Your task to perform on an android device: turn on location history Image 0: 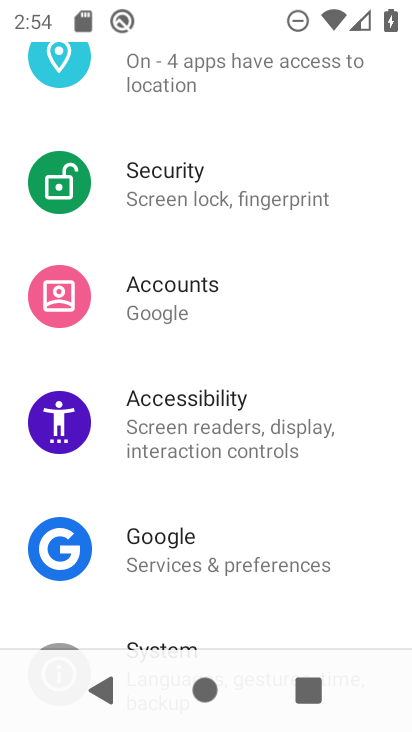
Step 0: click (197, 75)
Your task to perform on an android device: turn on location history Image 1: 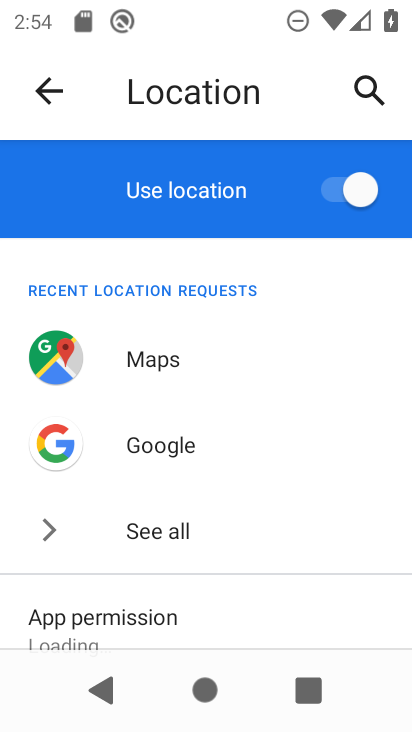
Step 1: drag from (236, 564) to (286, 146)
Your task to perform on an android device: turn on location history Image 2: 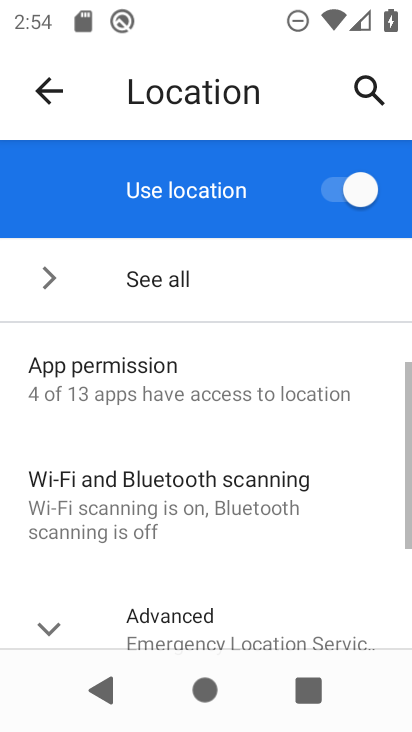
Step 2: drag from (254, 560) to (259, 326)
Your task to perform on an android device: turn on location history Image 3: 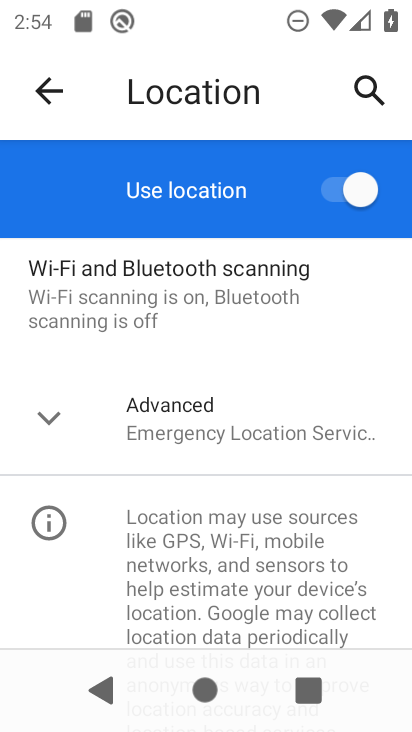
Step 3: click (209, 420)
Your task to perform on an android device: turn on location history Image 4: 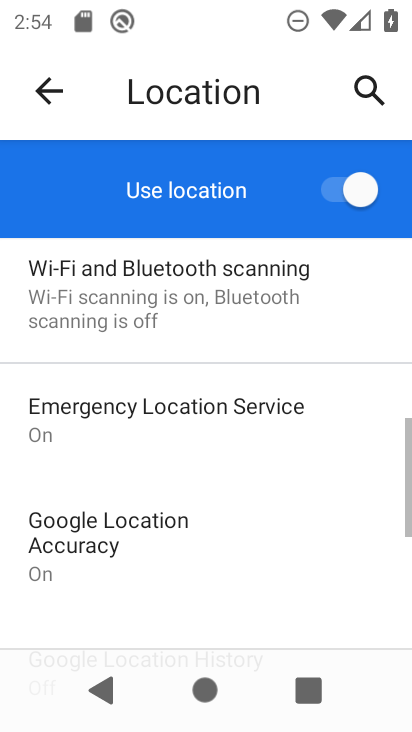
Step 4: drag from (248, 560) to (234, 315)
Your task to perform on an android device: turn on location history Image 5: 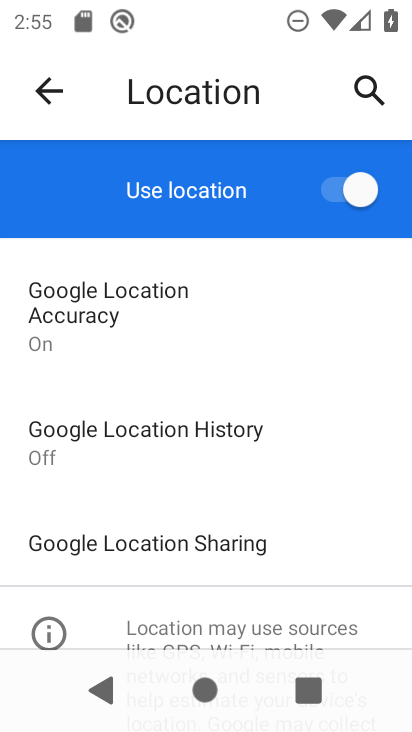
Step 5: click (210, 440)
Your task to perform on an android device: turn on location history Image 6: 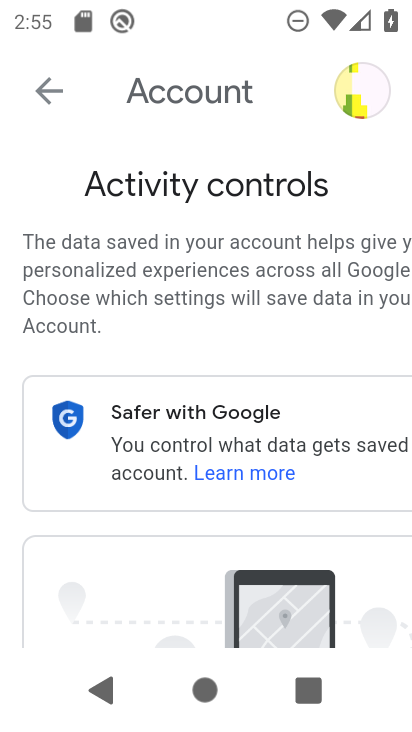
Step 6: drag from (159, 603) to (179, 169)
Your task to perform on an android device: turn on location history Image 7: 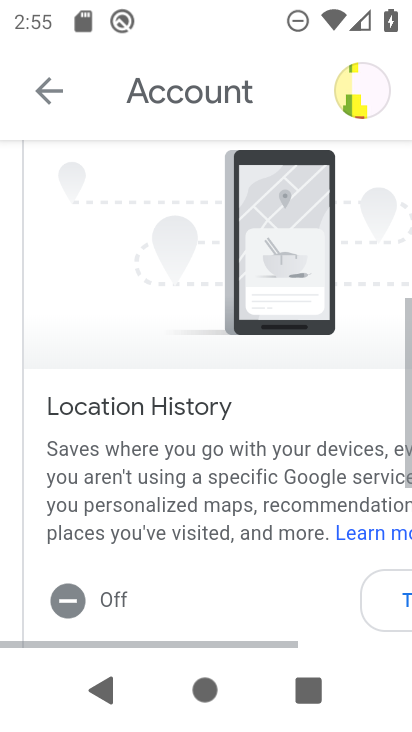
Step 7: drag from (141, 606) to (164, 315)
Your task to perform on an android device: turn on location history Image 8: 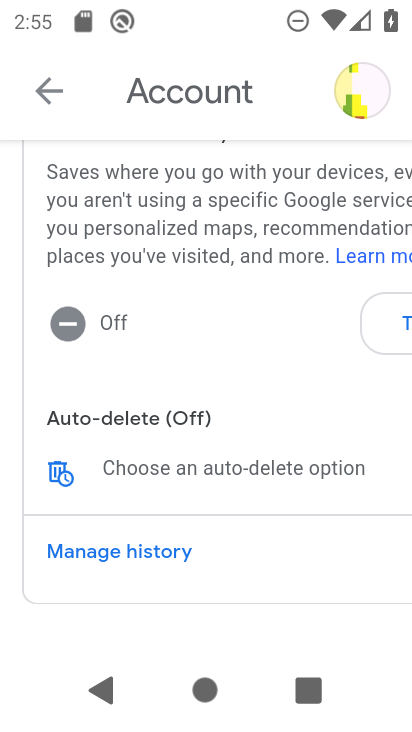
Step 8: click (397, 319)
Your task to perform on an android device: turn on location history Image 9: 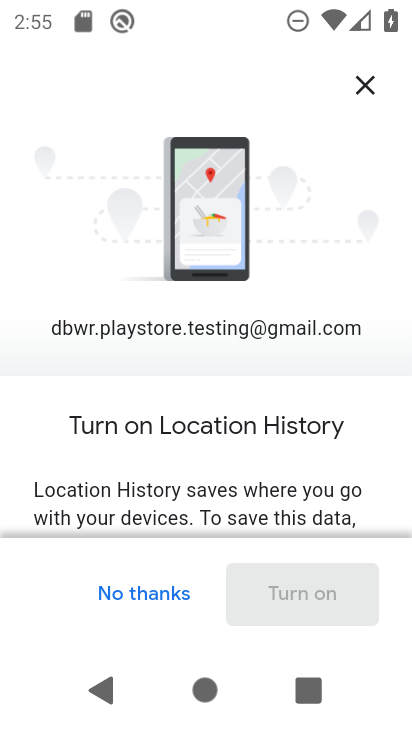
Step 9: drag from (212, 500) to (205, 128)
Your task to perform on an android device: turn on location history Image 10: 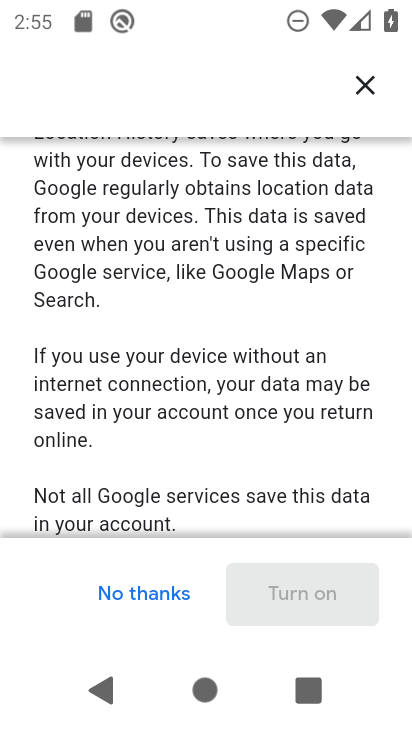
Step 10: drag from (218, 470) to (191, 94)
Your task to perform on an android device: turn on location history Image 11: 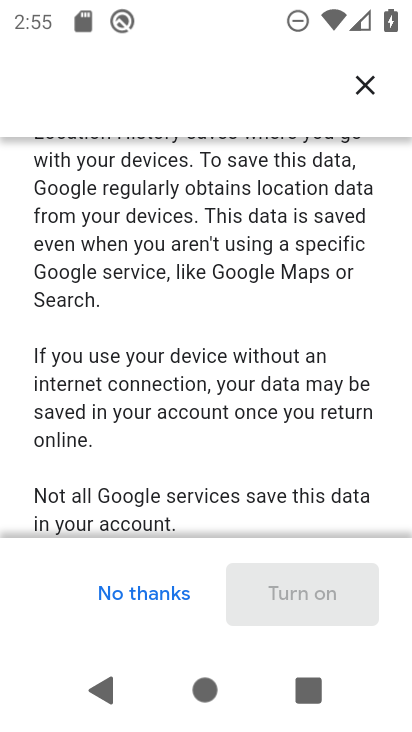
Step 11: drag from (200, 480) to (210, 176)
Your task to perform on an android device: turn on location history Image 12: 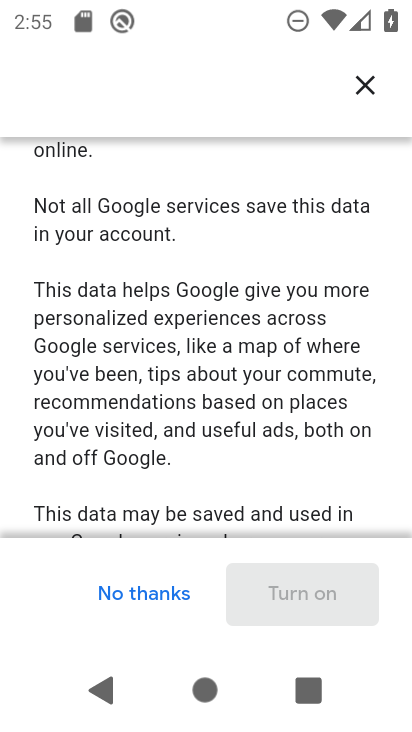
Step 12: drag from (185, 523) to (185, 91)
Your task to perform on an android device: turn on location history Image 13: 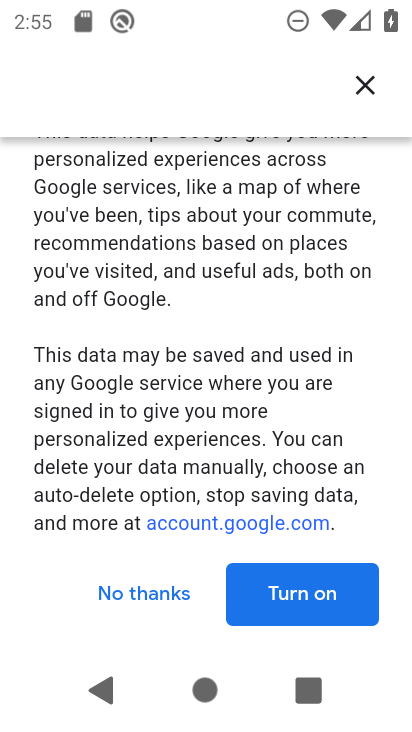
Step 13: click (276, 597)
Your task to perform on an android device: turn on location history Image 14: 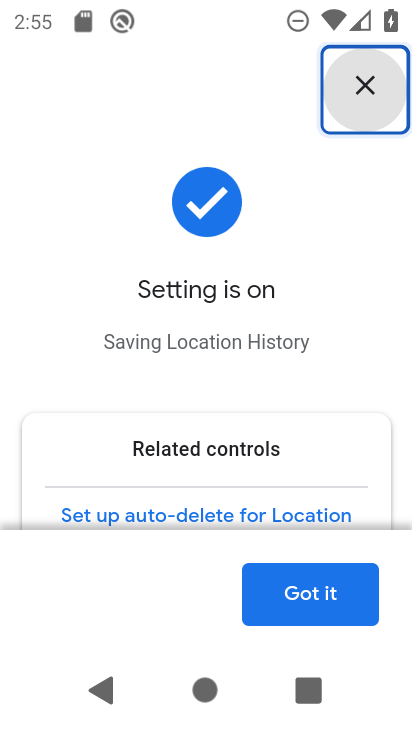
Step 14: click (291, 599)
Your task to perform on an android device: turn on location history Image 15: 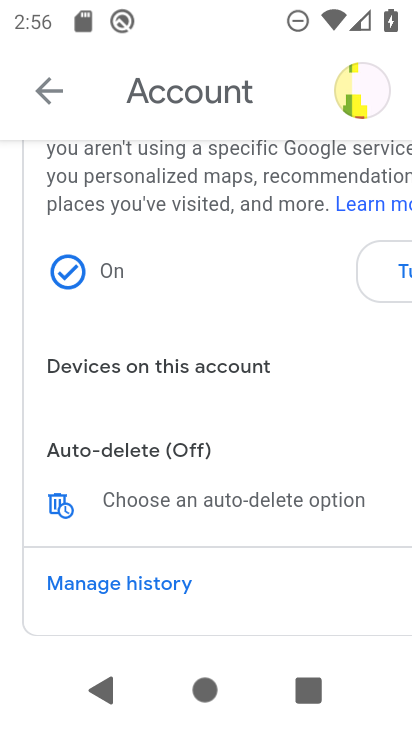
Step 15: task complete